Your task to perform on an android device: turn off airplane mode Image 0: 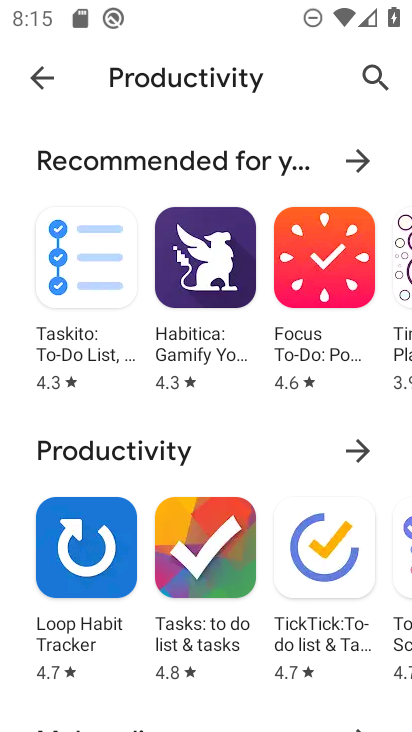
Step 0: press home button
Your task to perform on an android device: turn off airplane mode Image 1: 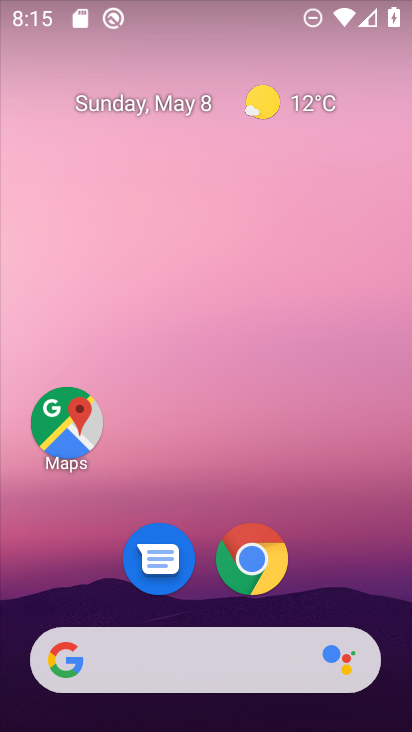
Step 1: drag from (347, 581) to (330, 17)
Your task to perform on an android device: turn off airplane mode Image 2: 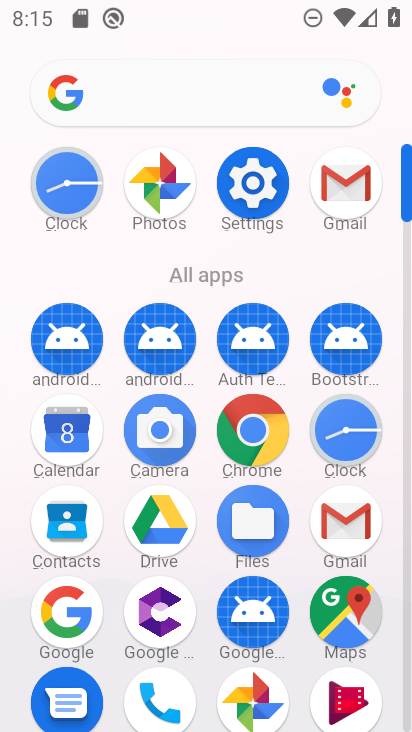
Step 2: click (251, 184)
Your task to perform on an android device: turn off airplane mode Image 3: 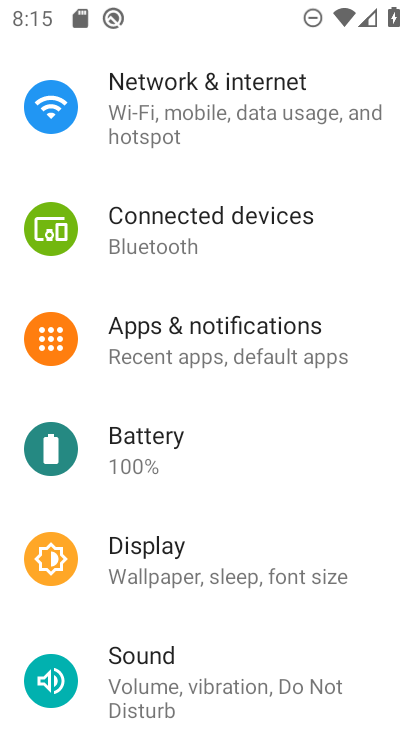
Step 3: click (230, 119)
Your task to perform on an android device: turn off airplane mode Image 4: 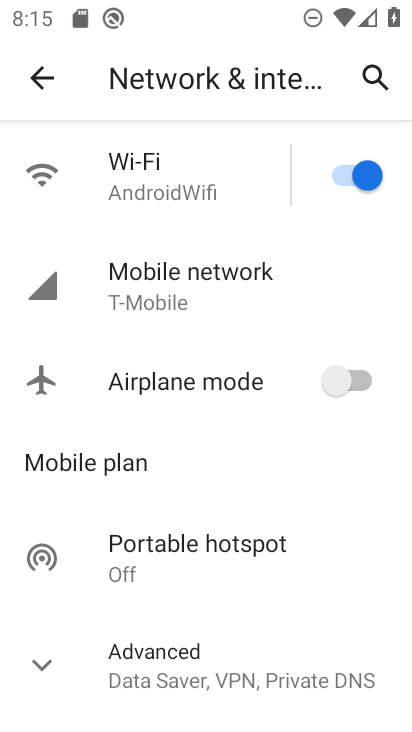
Step 4: task complete